Your task to perform on an android device: What's the weather today? Image 0: 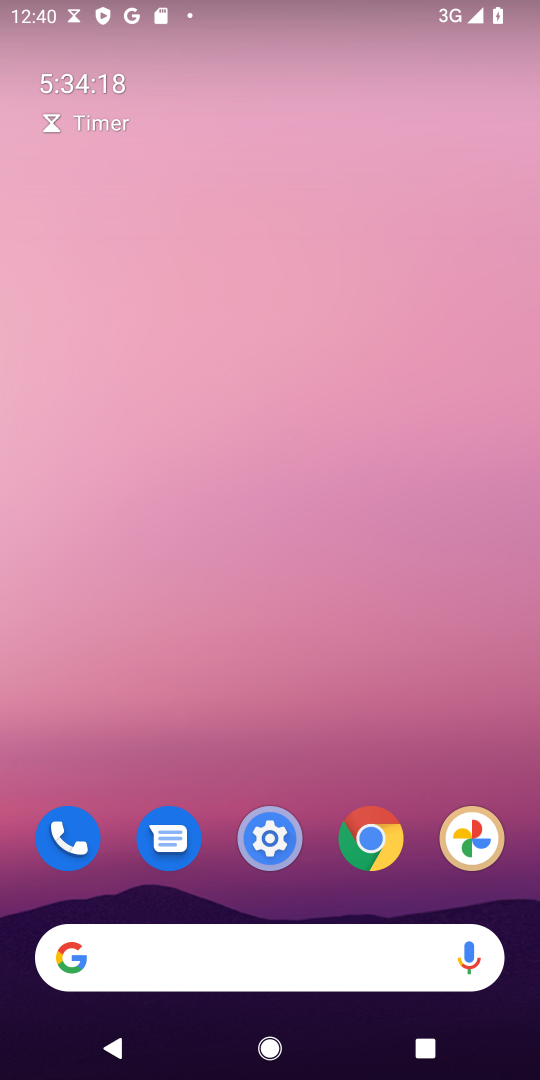
Step 0: click (229, 958)
Your task to perform on an android device: What's the weather today? Image 1: 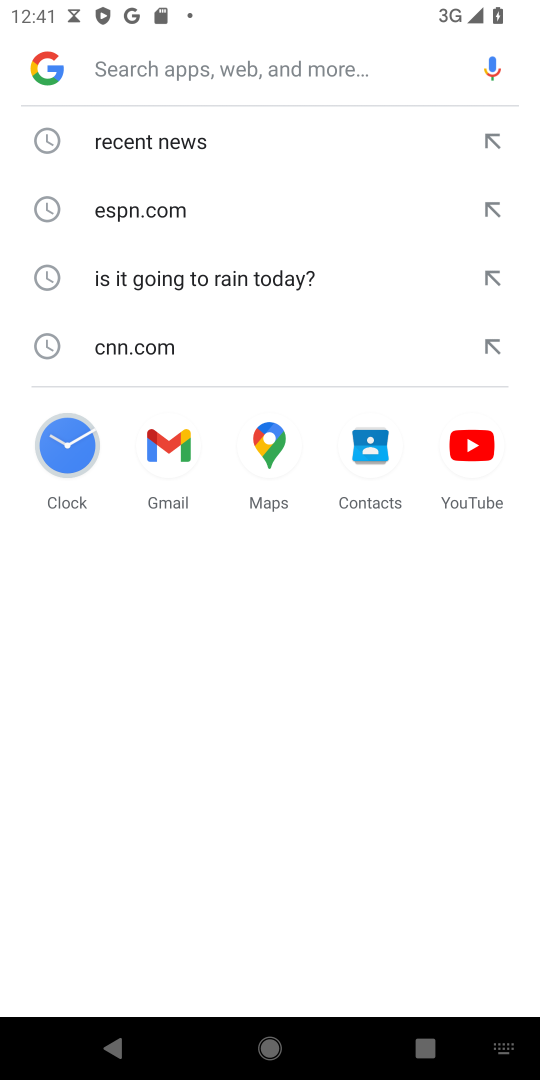
Step 1: type "what's the weather today"
Your task to perform on an android device: What's the weather today? Image 2: 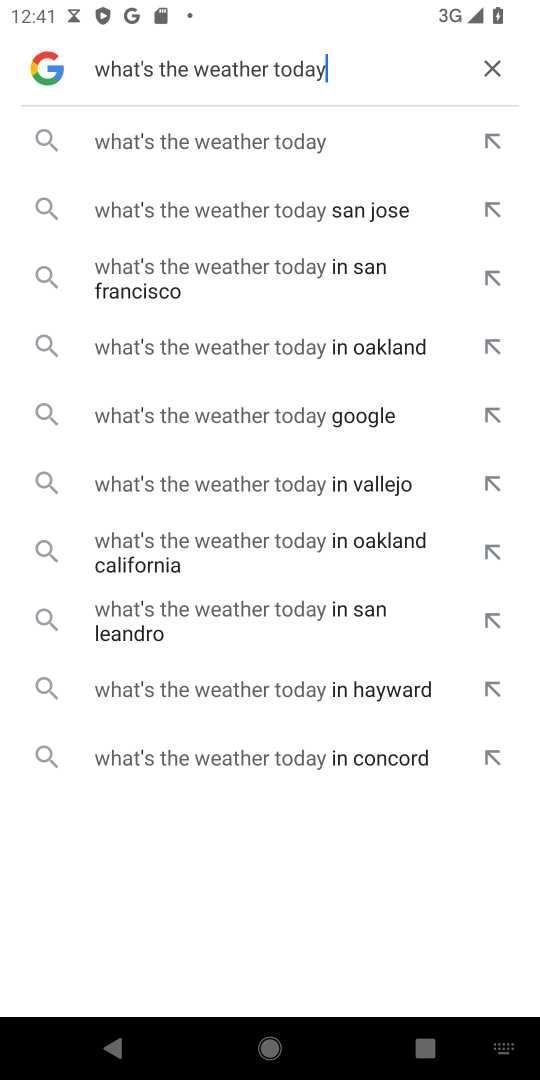
Step 2: click (342, 133)
Your task to perform on an android device: What's the weather today? Image 3: 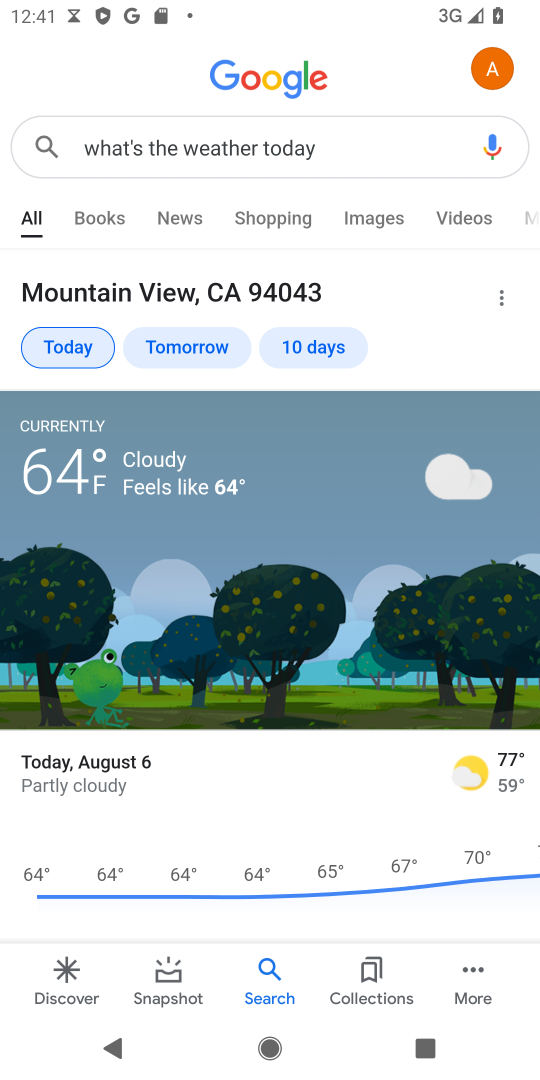
Step 3: task complete